Your task to perform on an android device: find snoozed emails in the gmail app Image 0: 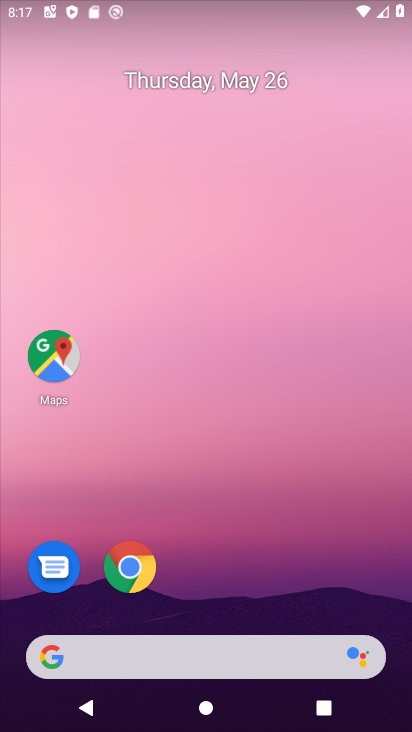
Step 0: drag from (119, 647) to (218, 56)
Your task to perform on an android device: find snoozed emails in the gmail app Image 1: 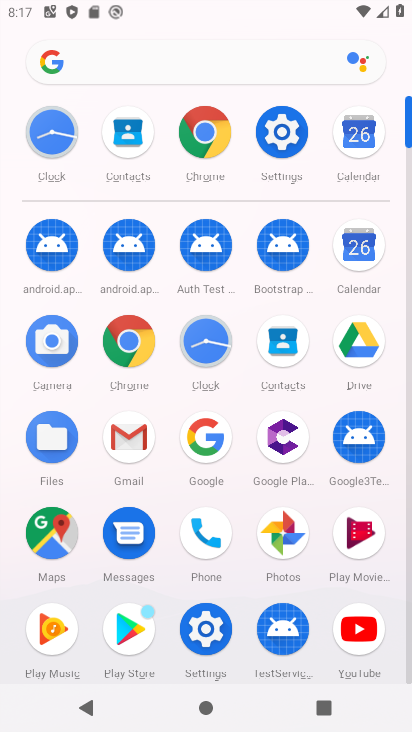
Step 1: click (124, 446)
Your task to perform on an android device: find snoozed emails in the gmail app Image 2: 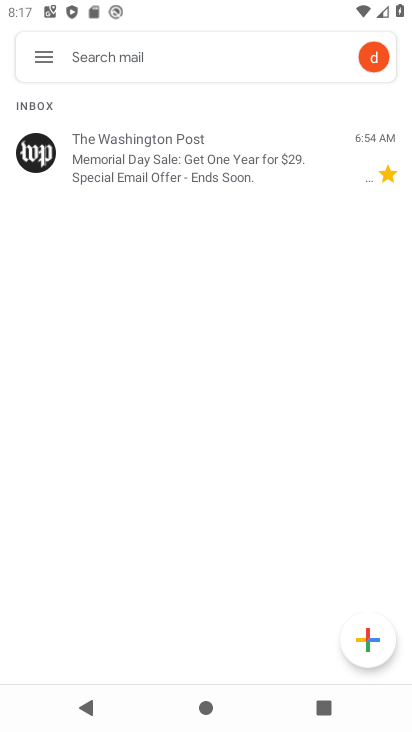
Step 2: click (49, 54)
Your task to perform on an android device: find snoozed emails in the gmail app Image 3: 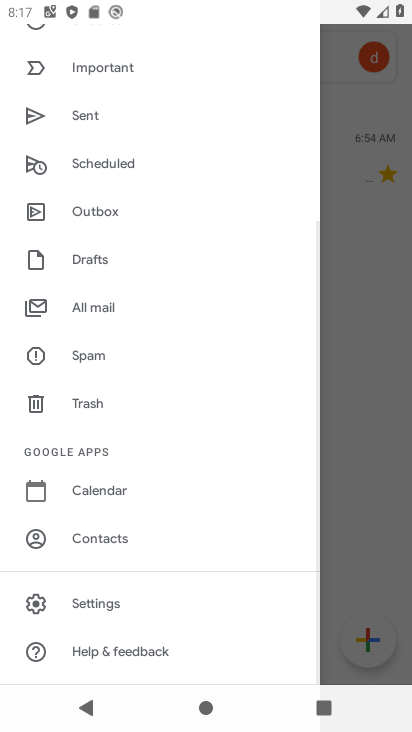
Step 3: drag from (190, 165) to (172, 531)
Your task to perform on an android device: find snoozed emails in the gmail app Image 4: 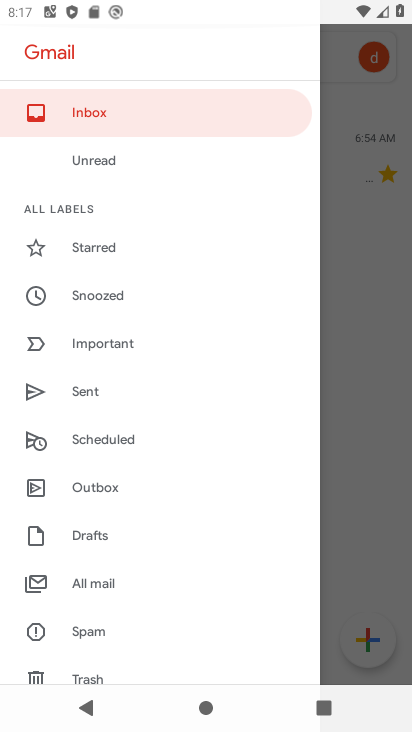
Step 4: click (127, 290)
Your task to perform on an android device: find snoozed emails in the gmail app Image 5: 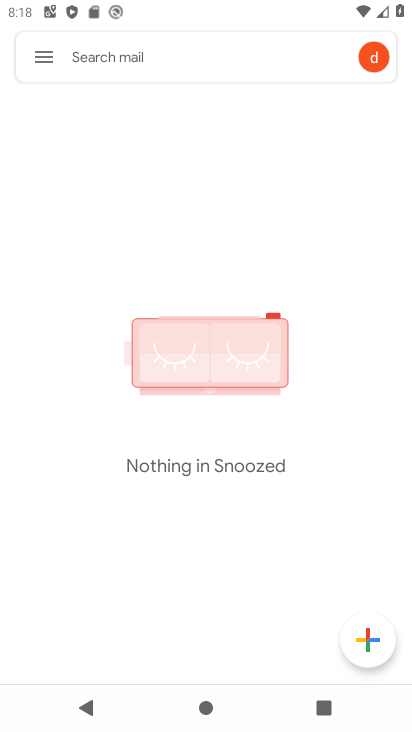
Step 5: task complete